Your task to perform on an android device: change the upload size in google photos Image 0: 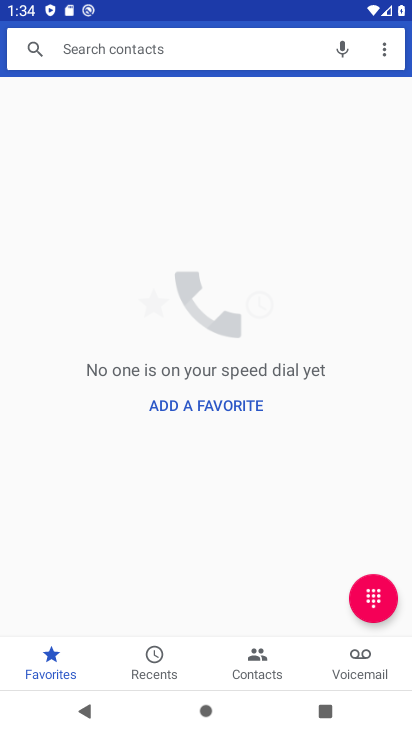
Step 0: press home button
Your task to perform on an android device: change the upload size in google photos Image 1: 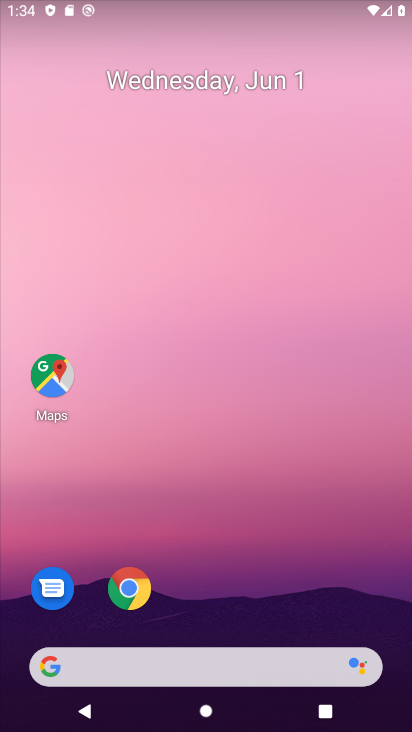
Step 1: drag from (199, 640) to (262, 188)
Your task to perform on an android device: change the upload size in google photos Image 2: 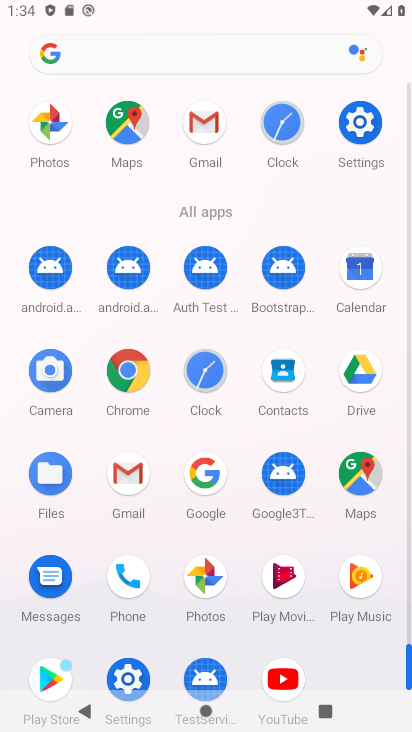
Step 2: click (200, 563)
Your task to perform on an android device: change the upload size in google photos Image 3: 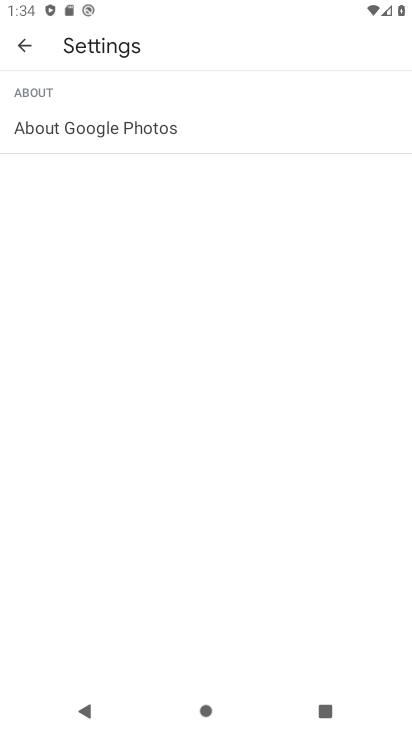
Step 3: click (28, 53)
Your task to perform on an android device: change the upload size in google photos Image 4: 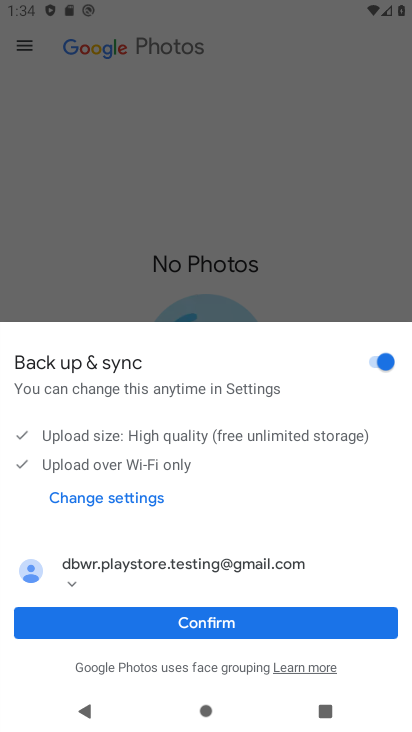
Step 4: click (238, 610)
Your task to perform on an android device: change the upload size in google photos Image 5: 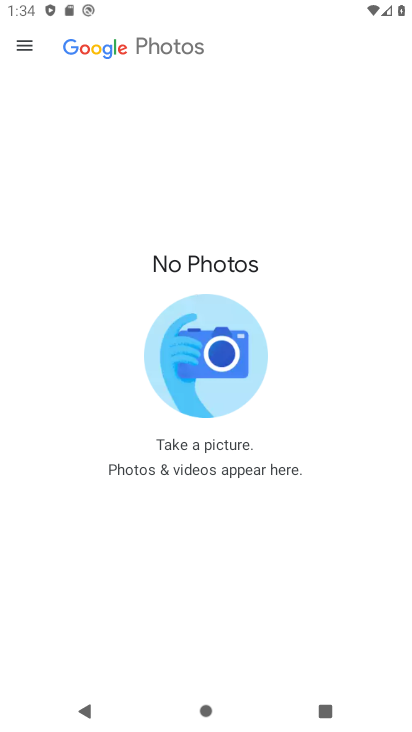
Step 5: click (29, 56)
Your task to perform on an android device: change the upload size in google photos Image 6: 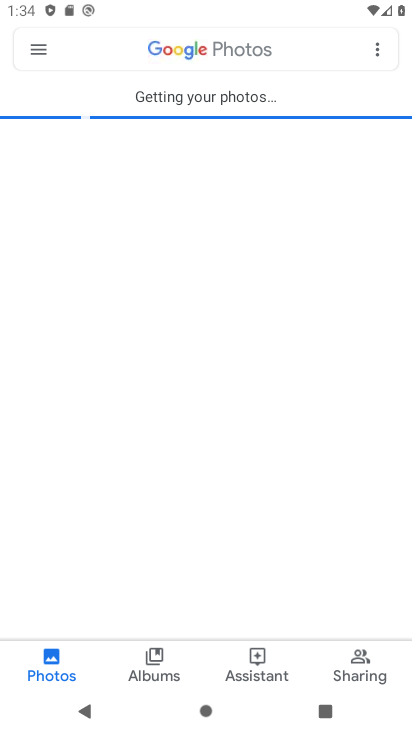
Step 6: click (42, 48)
Your task to perform on an android device: change the upload size in google photos Image 7: 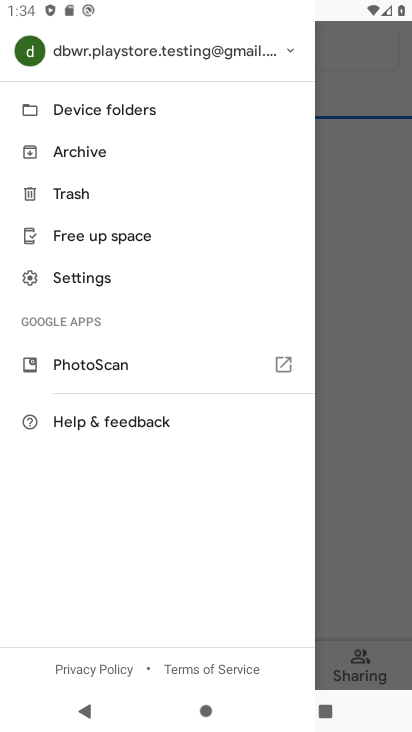
Step 7: click (174, 304)
Your task to perform on an android device: change the upload size in google photos Image 8: 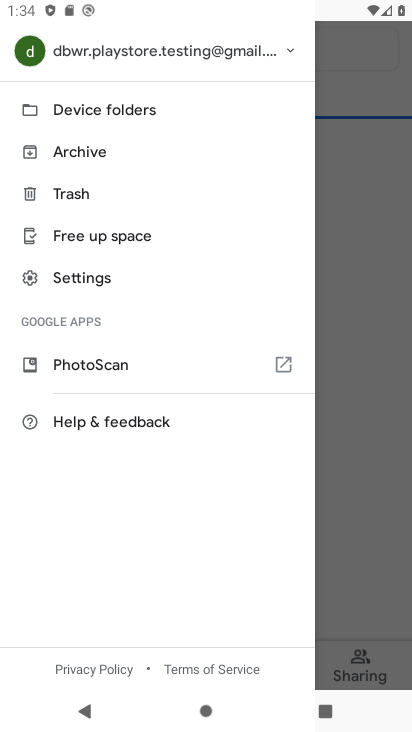
Step 8: click (145, 281)
Your task to perform on an android device: change the upload size in google photos Image 9: 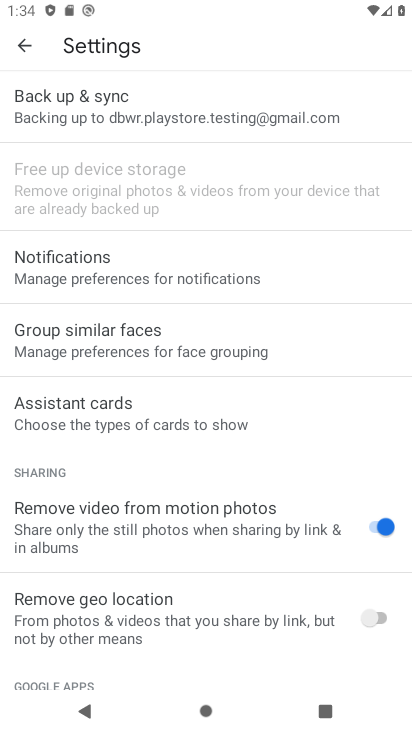
Step 9: click (180, 113)
Your task to perform on an android device: change the upload size in google photos Image 10: 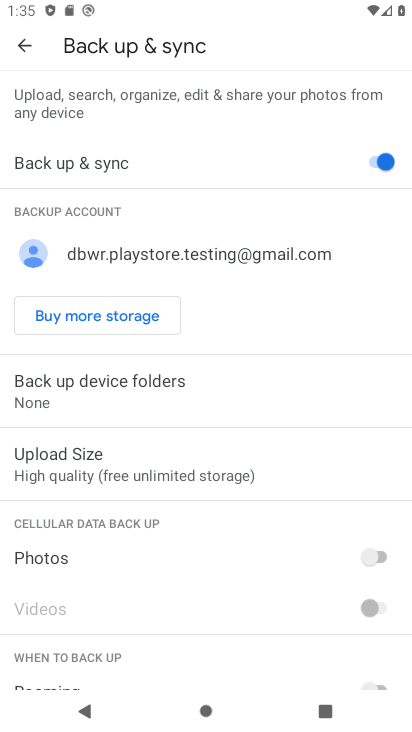
Step 10: click (216, 492)
Your task to perform on an android device: change the upload size in google photos Image 11: 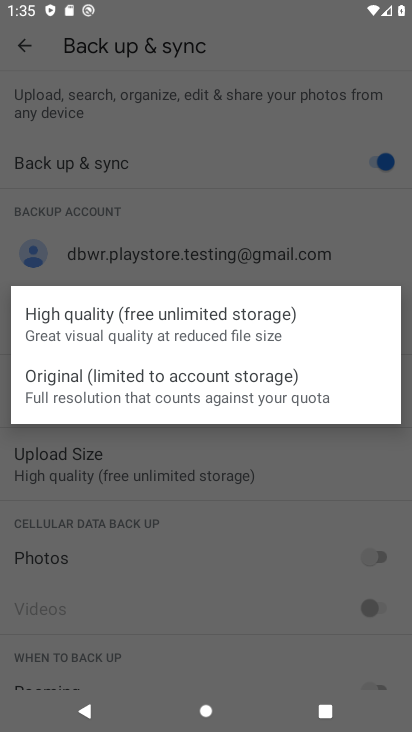
Step 11: click (194, 395)
Your task to perform on an android device: change the upload size in google photos Image 12: 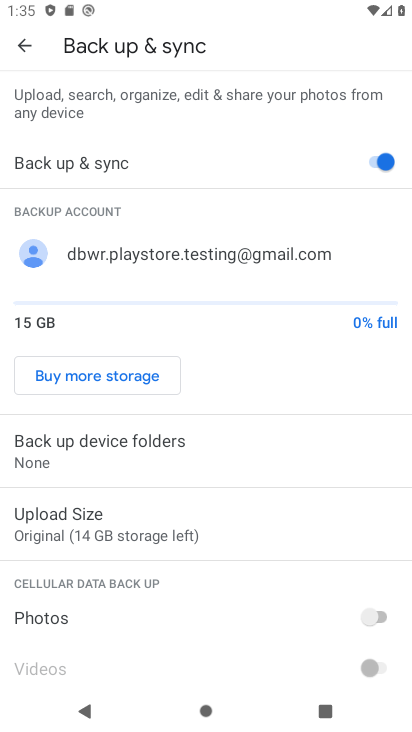
Step 12: task complete